Your task to perform on an android device: all mails in gmail Image 0: 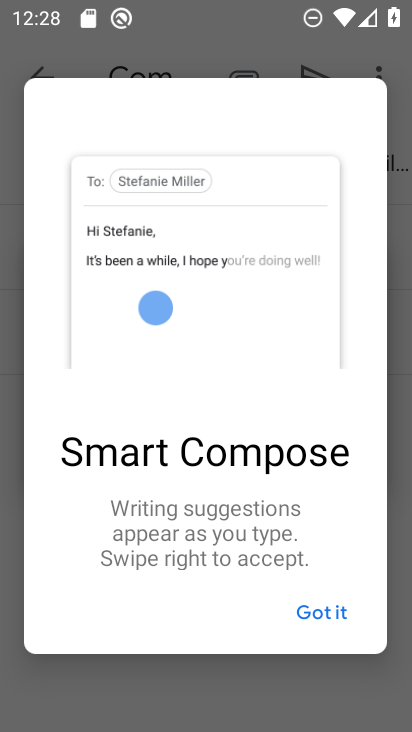
Step 0: click (320, 613)
Your task to perform on an android device: all mails in gmail Image 1: 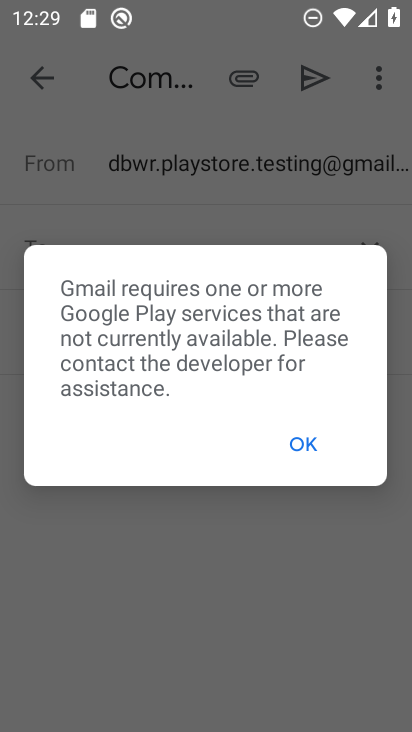
Step 1: press home button
Your task to perform on an android device: all mails in gmail Image 2: 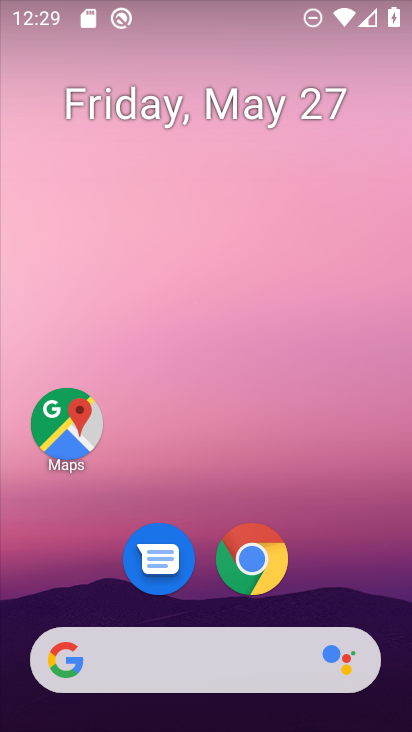
Step 2: drag from (311, 527) to (46, 22)
Your task to perform on an android device: all mails in gmail Image 3: 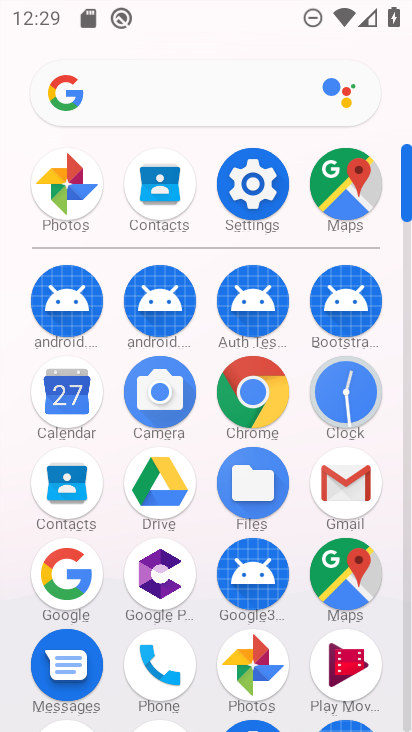
Step 3: click (353, 460)
Your task to perform on an android device: all mails in gmail Image 4: 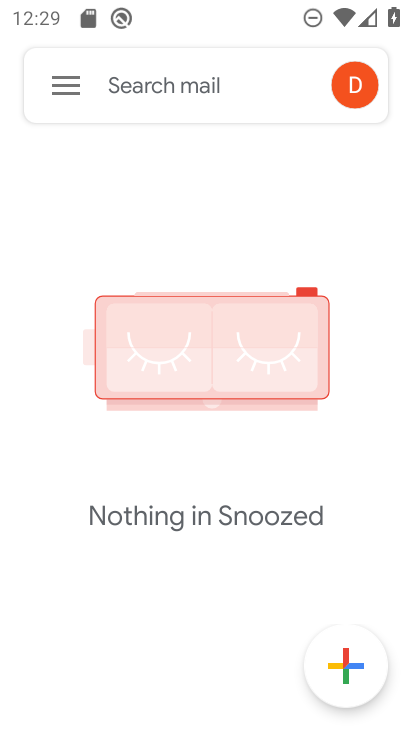
Step 4: click (65, 75)
Your task to perform on an android device: all mails in gmail Image 5: 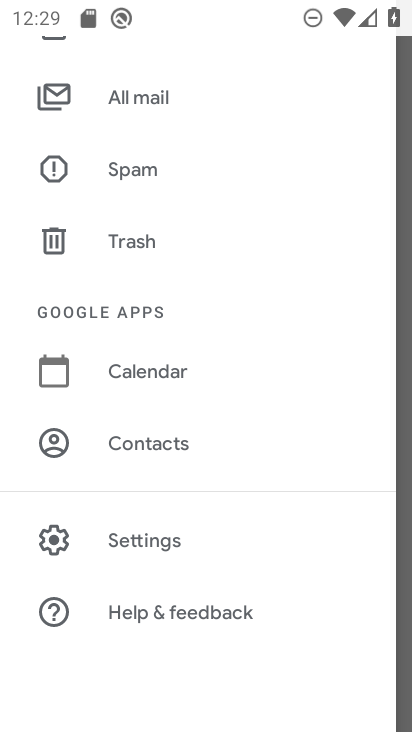
Step 5: click (155, 96)
Your task to perform on an android device: all mails in gmail Image 6: 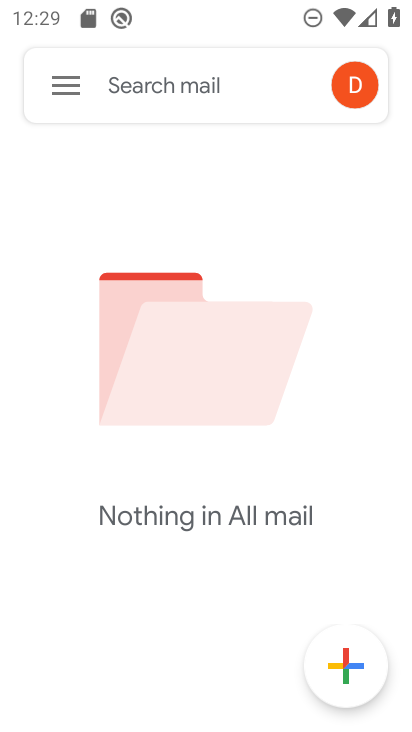
Step 6: task complete